Your task to perform on an android device: Go to wifi settings Image 0: 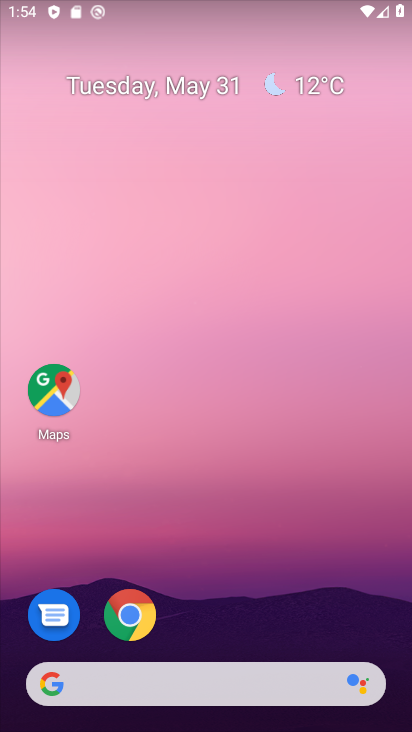
Step 0: drag from (227, 640) to (355, 84)
Your task to perform on an android device: Go to wifi settings Image 1: 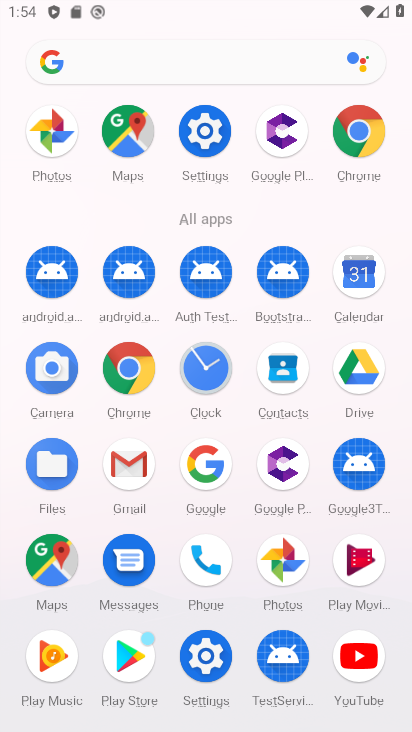
Step 1: click (217, 668)
Your task to perform on an android device: Go to wifi settings Image 2: 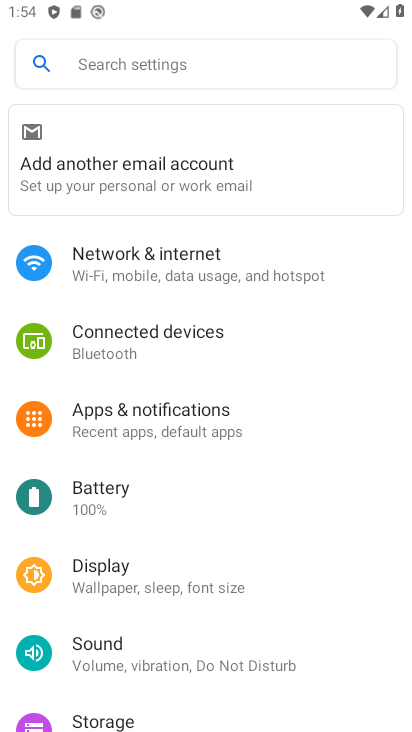
Step 2: click (243, 268)
Your task to perform on an android device: Go to wifi settings Image 3: 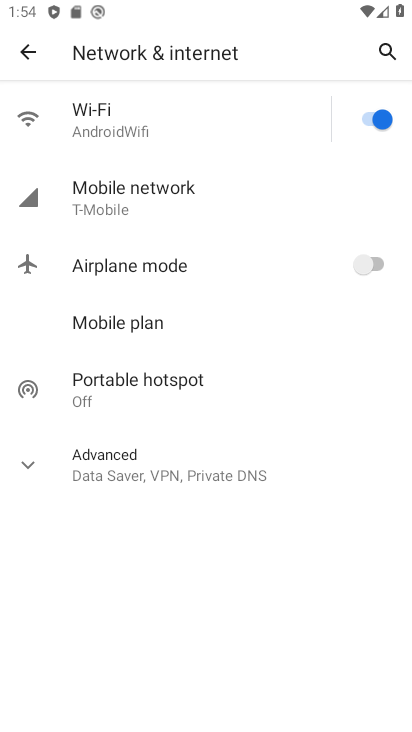
Step 3: click (166, 141)
Your task to perform on an android device: Go to wifi settings Image 4: 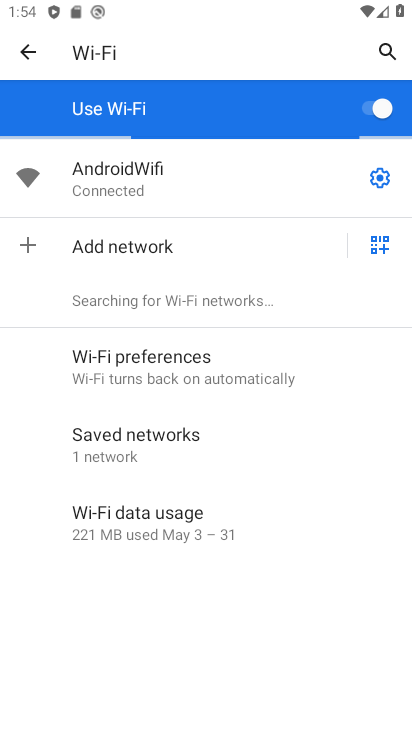
Step 4: task complete